Your task to perform on an android device: Show me recent news Image 0: 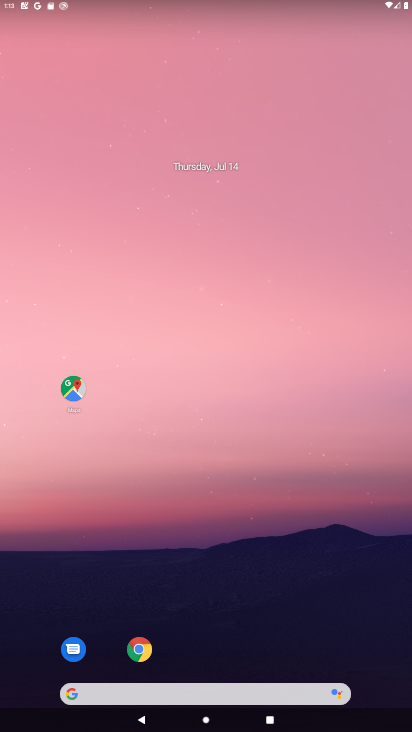
Step 0: drag from (313, 698) to (299, 82)
Your task to perform on an android device: Show me recent news Image 1: 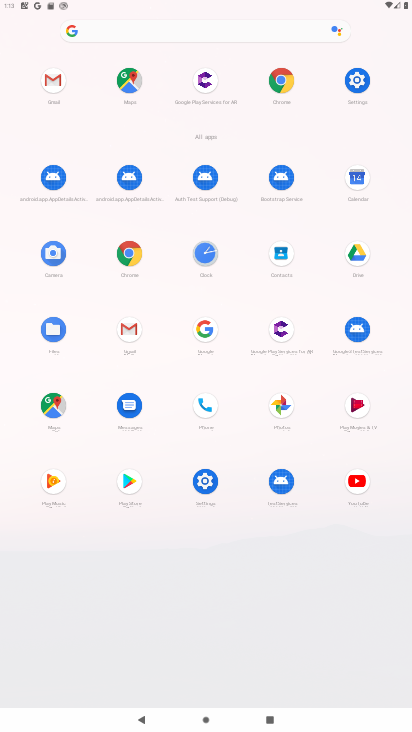
Step 1: click (130, 254)
Your task to perform on an android device: Show me recent news Image 2: 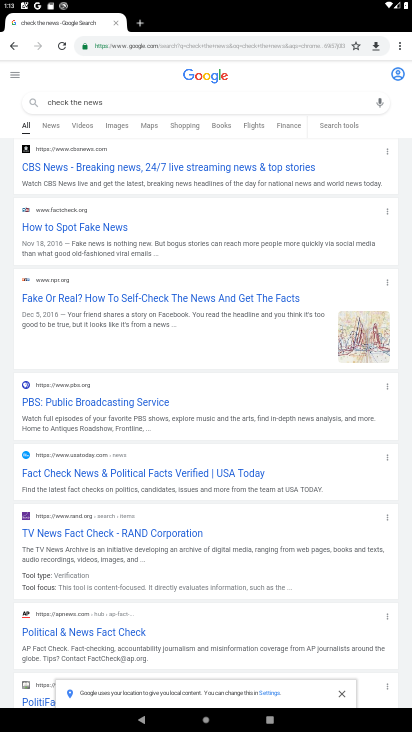
Step 2: click (152, 44)
Your task to perform on an android device: Show me recent news Image 3: 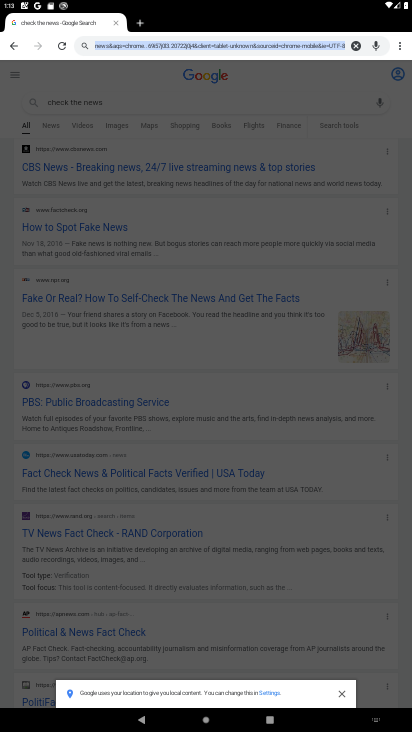
Step 3: type "recent news"
Your task to perform on an android device: Show me recent news Image 4: 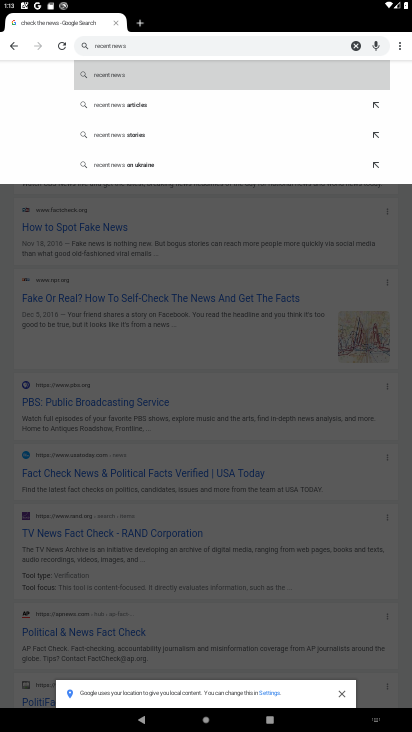
Step 4: click (166, 76)
Your task to perform on an android device: Show me recent news Image 5: 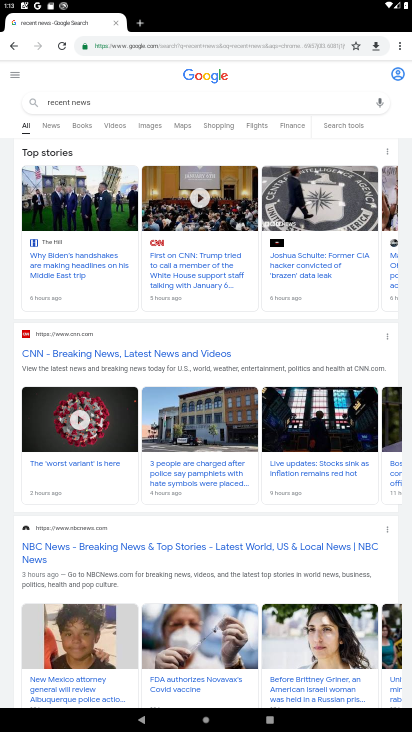
Step 5: task complete